Your task to perform on an android device: toggle improve location accuracy Image 0: 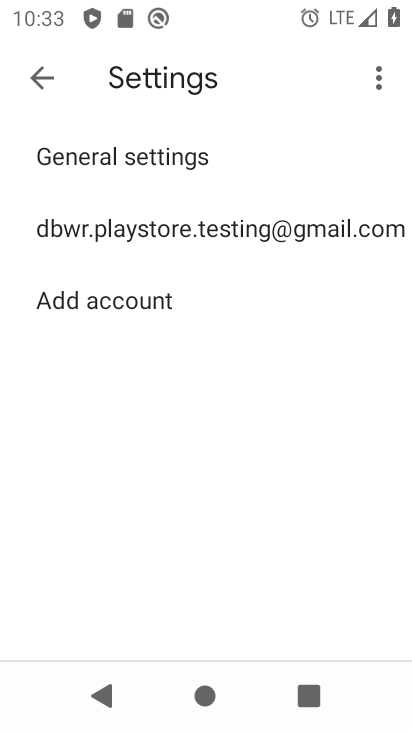
Step 0: press home button
Your task to perform on an android device: toggle improve location accuracy Image 1: 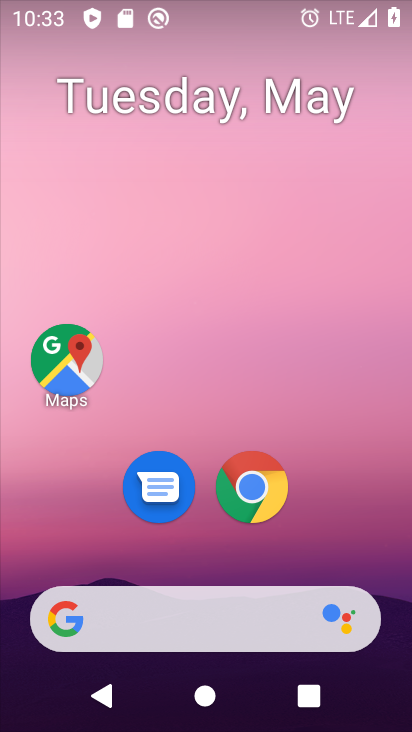
Step 1: drag from (172, 496) to (245, 164)
Your task to perform on an android device: toggle improve location accuracy Image 2: 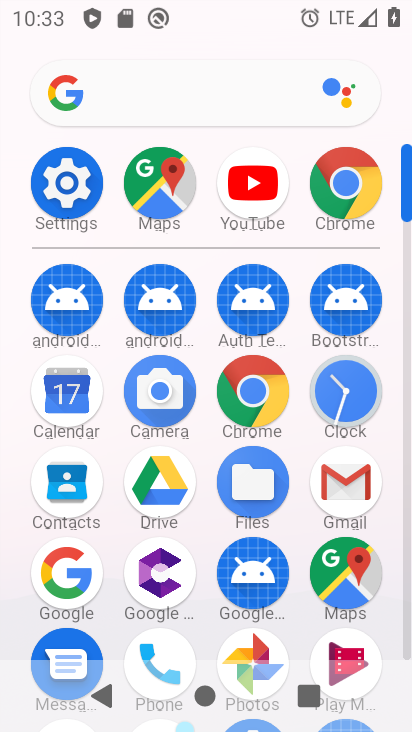
Step 2: click (71, 179)
Your task to perform on an android device: toggle improve location accuracy Image 3: 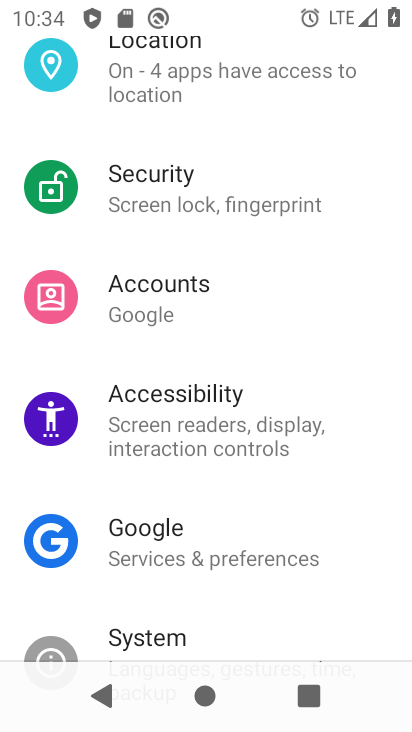
Step 3: drag from (173, 571) to (253, 192)
Your task to perform on an android device: toggle improve location accuracy Image 4: 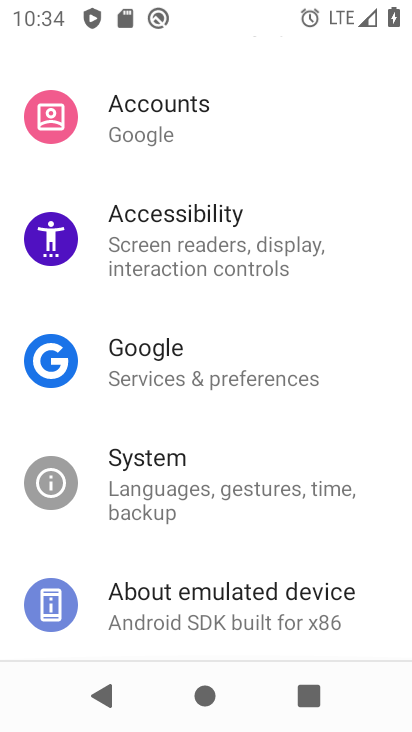
Step 4: drag from (257, 207) to (278, 719)
Your task to perform on an android device: toggle improve location accuracy Image 5: 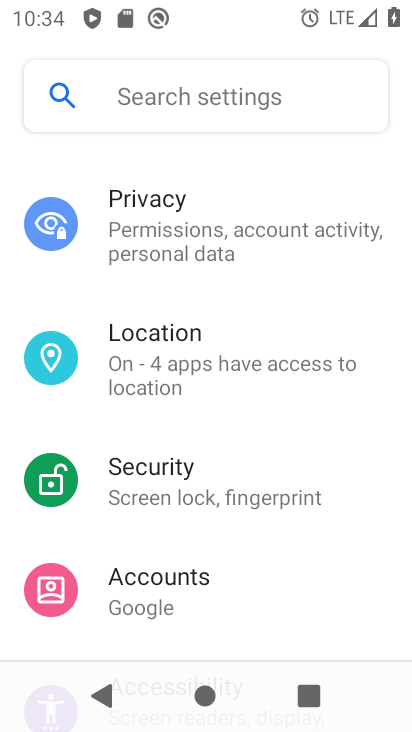
Step 5: click (182, 363)
Your task to perform on an android device: toggle improve location accuracy Image 6: 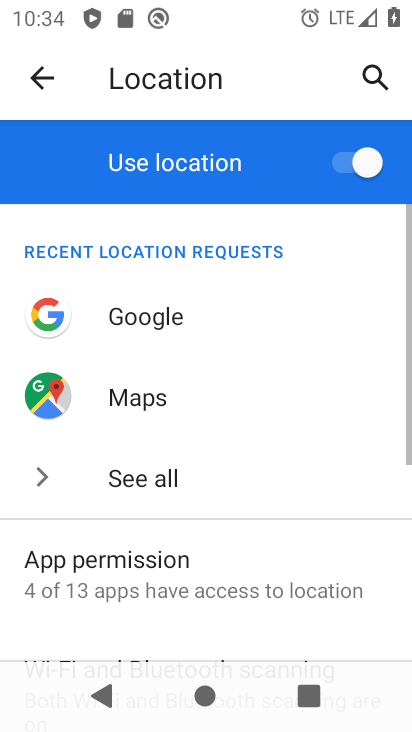
Step 6: drag from (294, 575) to (331, 238)
Your task to perform on an android device: toggle improve location accuracy Image 7: 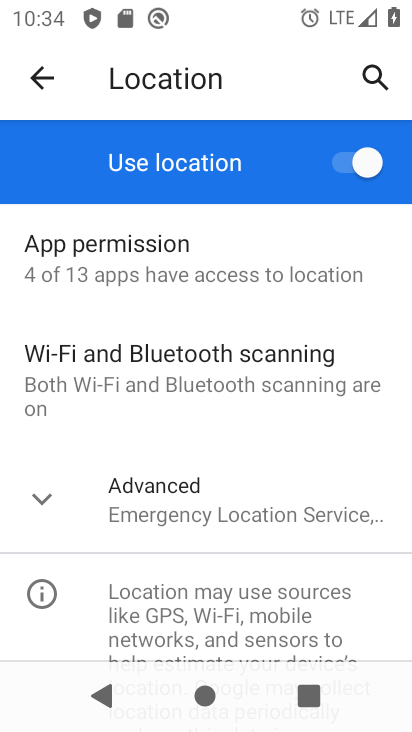
Step 7: click (168, 509)
Your task to perform on an android device: toggle improve location accuracy Image 8: 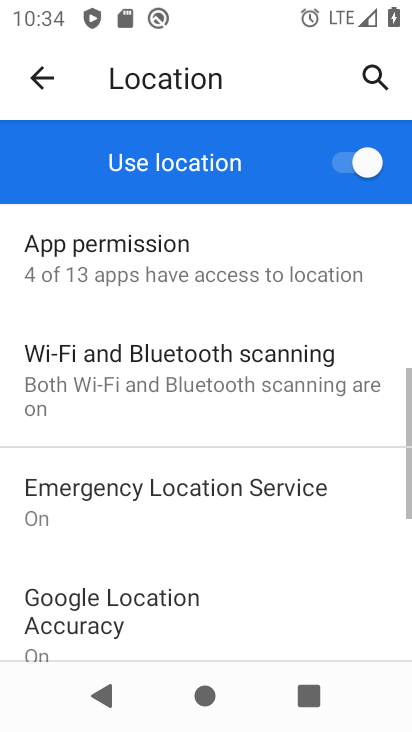
Step 8: drag from (168, 508) to (307, 122)
Your task to perform on an android device: toggle improve location accuracy Image 9: 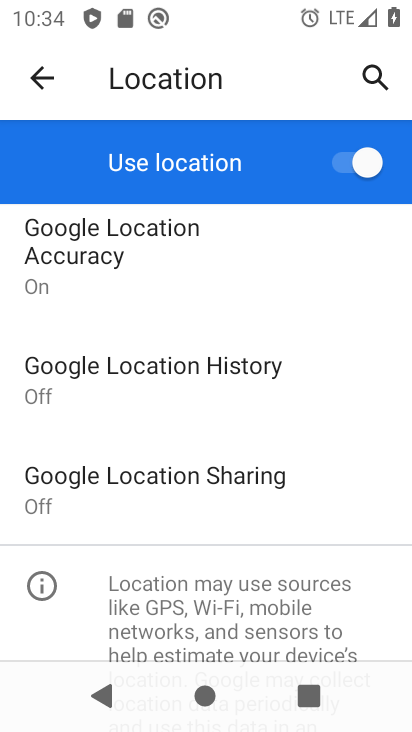
Step 9: click (149, 247)
Your task to perform on an android device: toggle improve location accuracy Image 10: 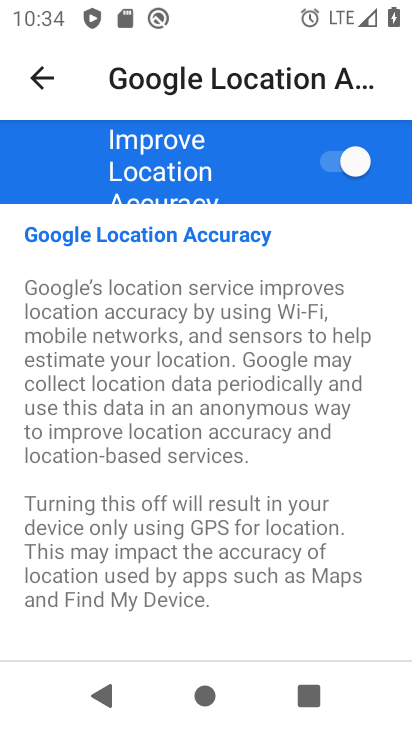
Step 10: click (348, 170)
Your task to perform on an android device: toggle improve location accuracy Image 11: 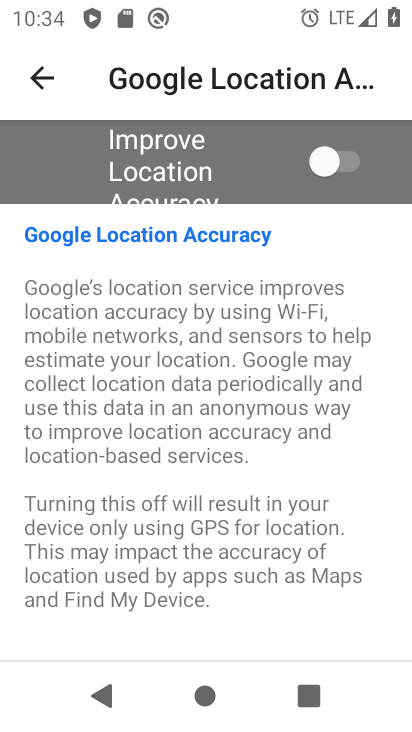
Step 11: task complete